Your task to perform on an android device: Open Wikipedia Image 0: 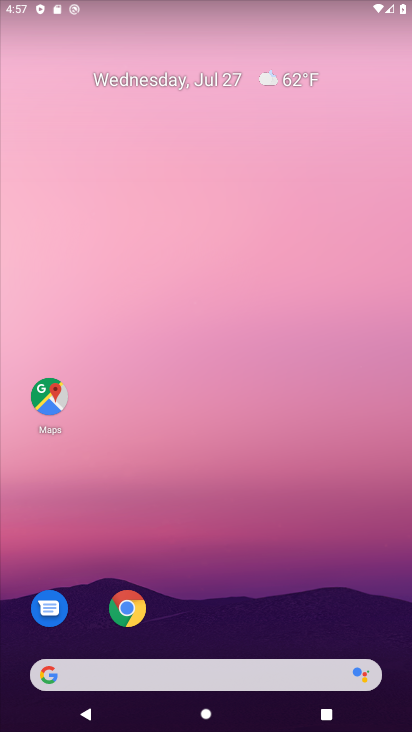
Step 0: click (133, 604)
Your task to perform on an android device: Open Wikipedia Image 1: 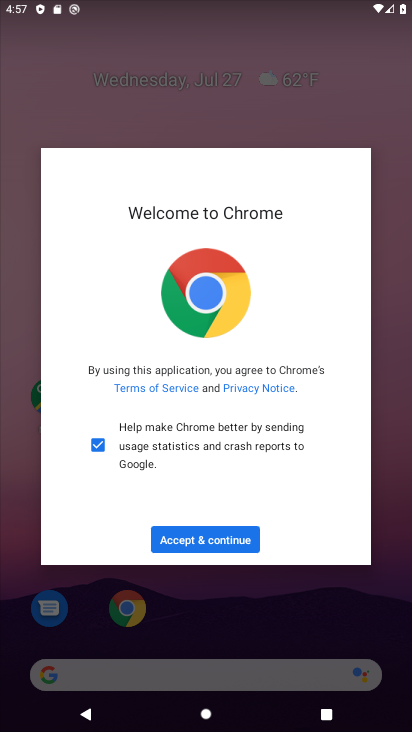
Step 1: click (203, 543)
Your task to perform on an android device: Open Wikipedia Image 2: 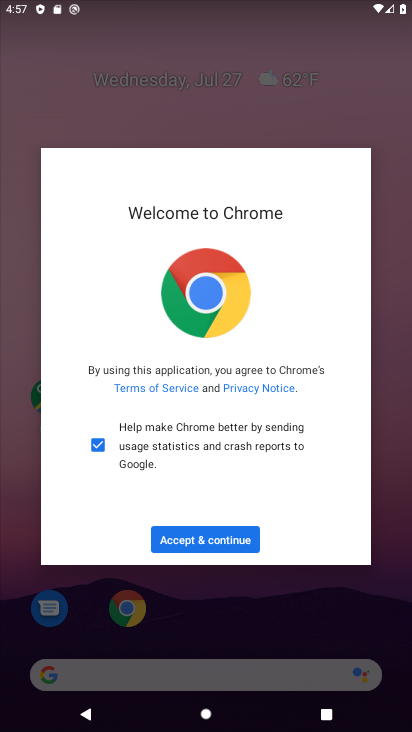
Step 2: click (203, 543)
Your task to perform on an android device: Open Wikipedia Image 3: 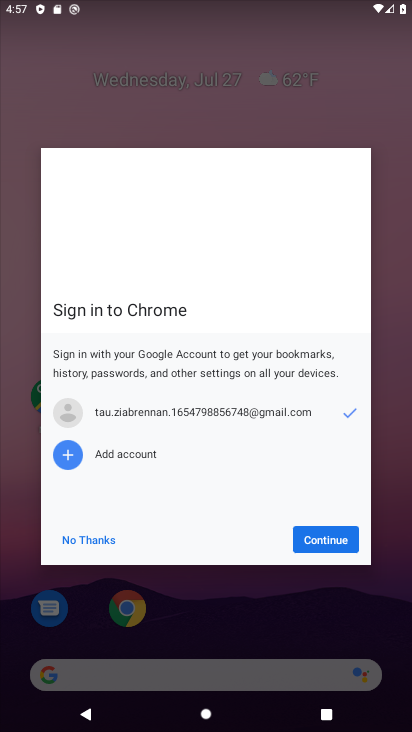
Step 3: click (203, 543)
Your task to perform on an android device: Open Wikipedia Image 4: 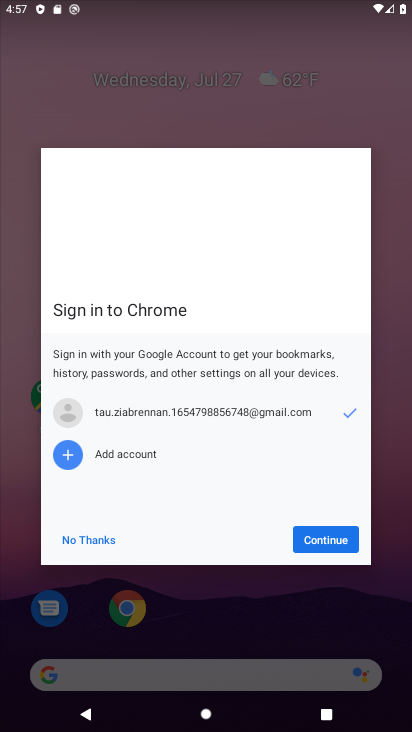
Step 4: click (203, 543)
Your task to perform on an android device: Open Wikipedia Image 5: 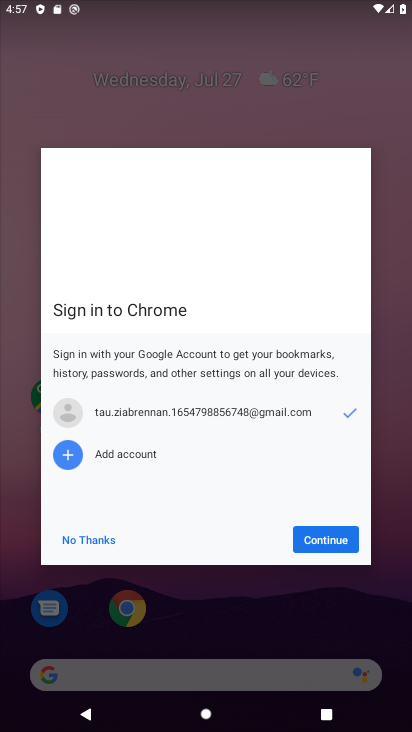
Step 5: click (203, 543)
Your task to perform on an android device: Open Wikipedia Image 6: 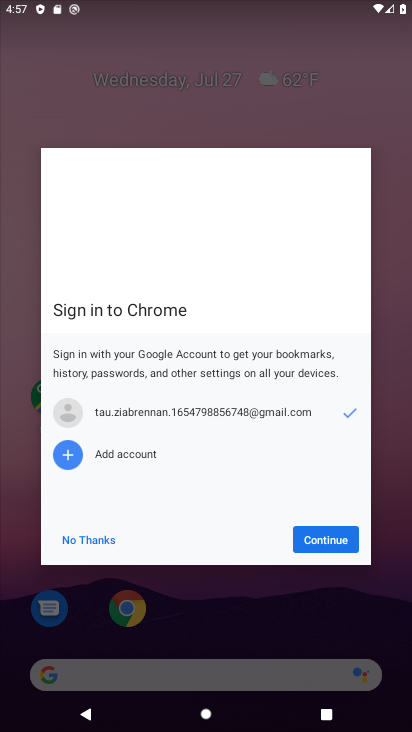
Step 6: click (331, 531)
Your task to perform on an android device: Open Wikipedia Image 7: 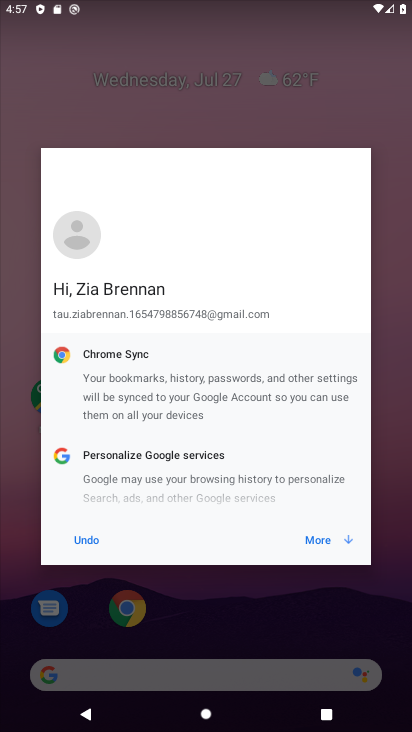
Step 7: click (331, 531)
Your task to perform on an android device: Open Wikipedia Image 8: 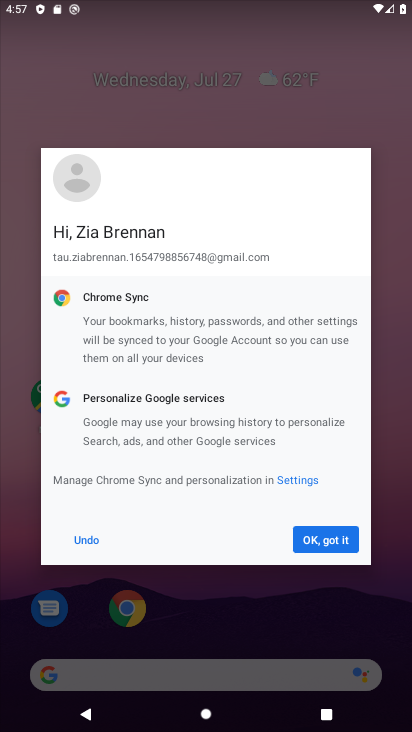
Step 8: click (331, 531)
Your task to perform on an android device: Open Wikipedia Image 9: 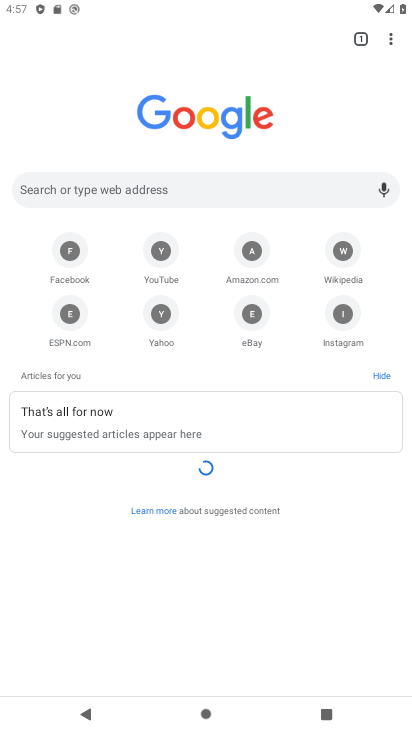
Step 9: click (344, 258)
Your task to perform on an android device: Open Wikipedia Image 10: 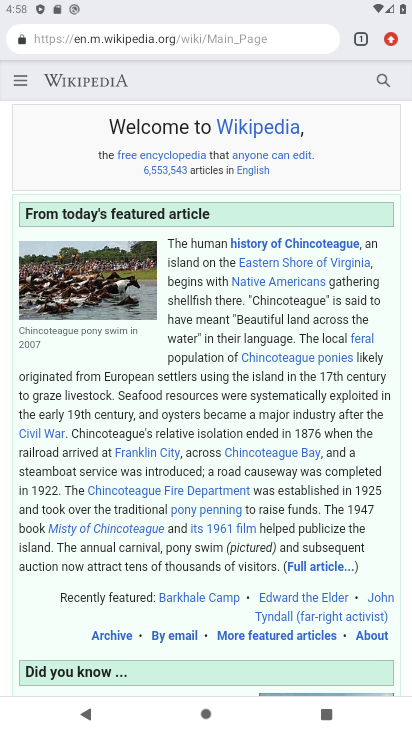
Step 10: task complete